Your task to perform on an android device: turn smart compose on in the gmail app Image 0: 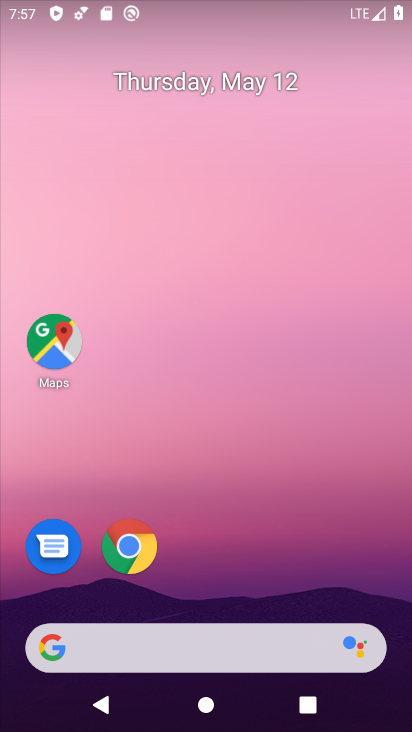
Step 0: drag from (238, 541) to (252, 25)
Your task to perform on an android device: turn smart compose on in the gmail app Image 1: 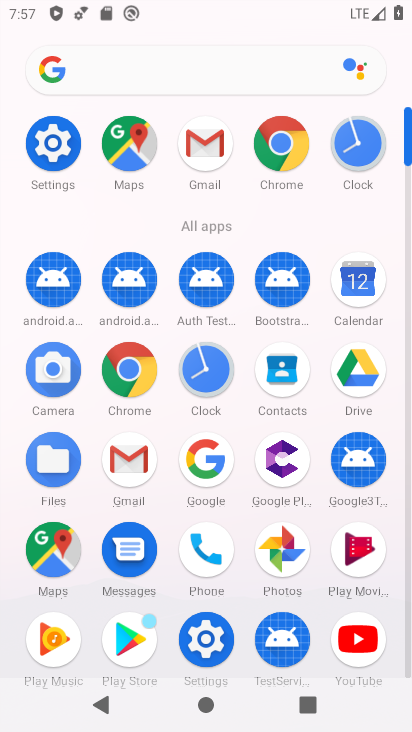
Step 1: click (210, 138)
Your task to perform on an android device: turn smart compose on in the gmail app Image 2: 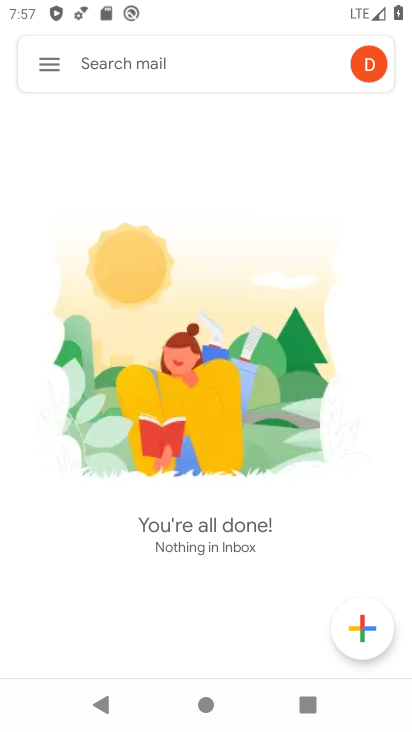
Step 2: click (55, 60)
Your task to perform on an android device: turn smart compose on in the gmail app Image 3: 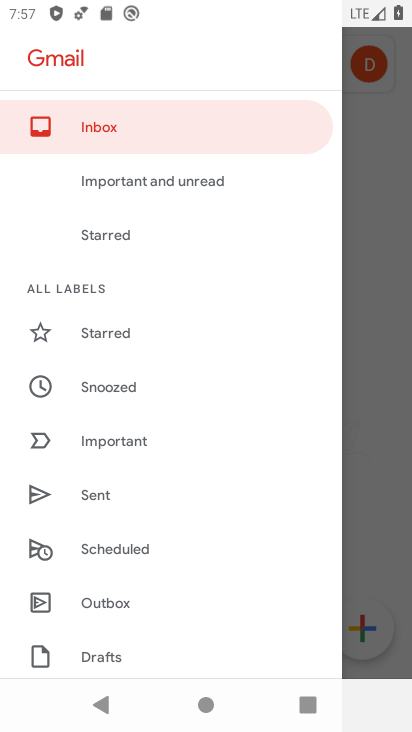
Step 3: drag from (125, 624) to (254, 49)
Your task to perform on an android device: turn smart compose on in the gmail app Image 4: 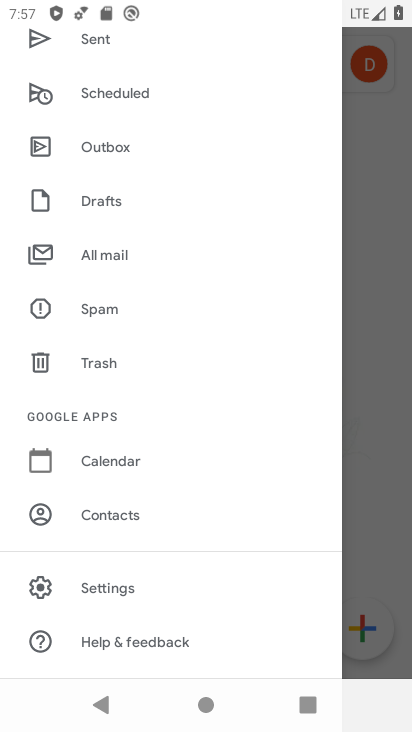
Step 4: click (134, 590)
Your task to perform on an android device: turn smart compose on in the gmail app Image 5: 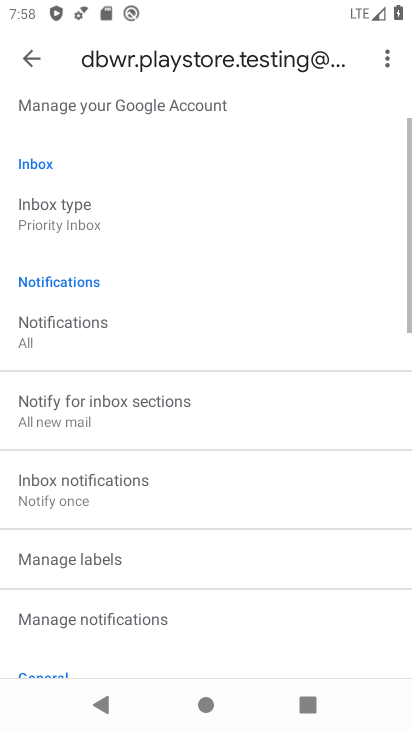
Step 5: task complete